Your task to perform on an android device: Go to Google maps Image 0: 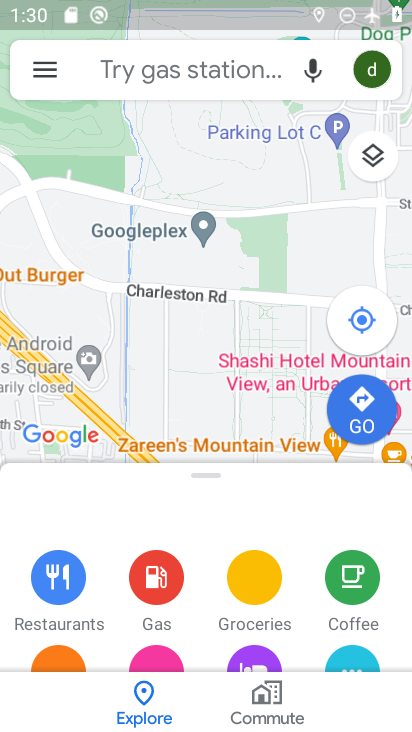
Step 0: drag from (313, 610) to (266, 63)
Your task to perform on an android device: Go to Google maps Image 1: 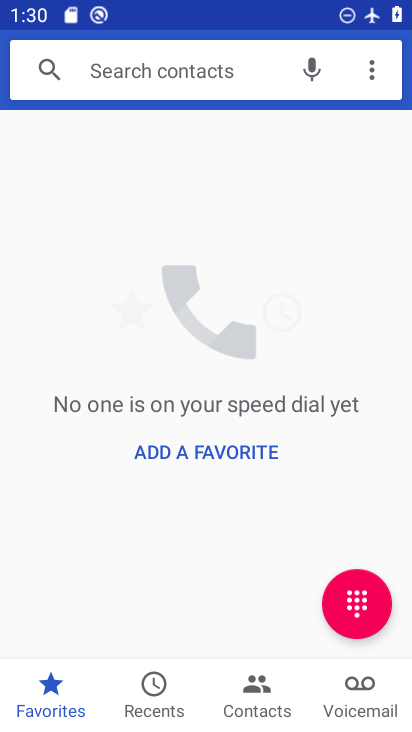
Step 1: press home button
Your task to perform on an android device: Go to Google maps Image 2: 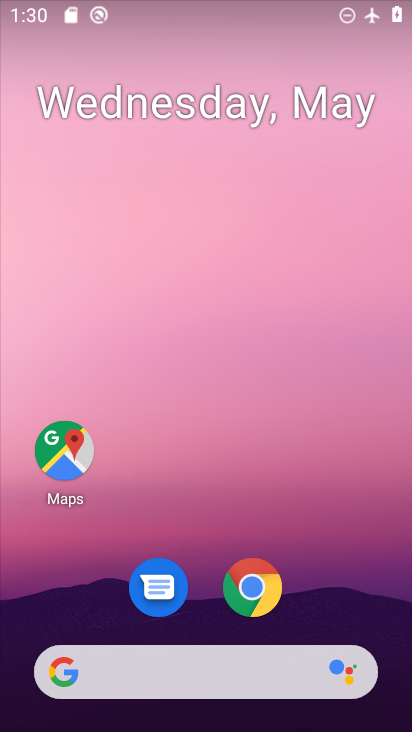
Step 2: drag from (210, 612) to (218, 150)
Your task to perform on an android device: Go to Google maps Image 3: 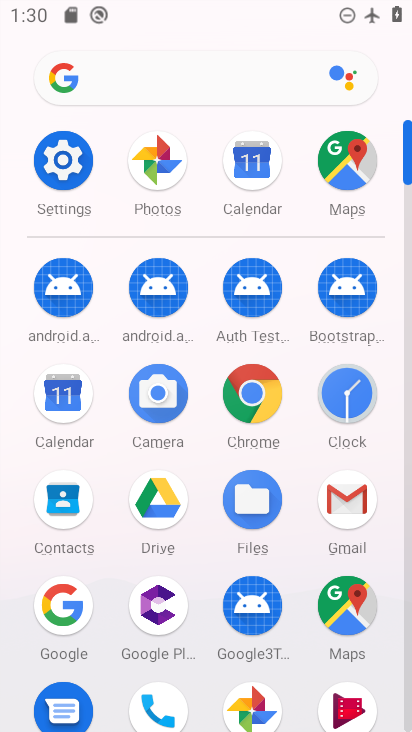
Step 3: click (337, 171)
Your task to perform on an android device: Go to Google maps Image 4: 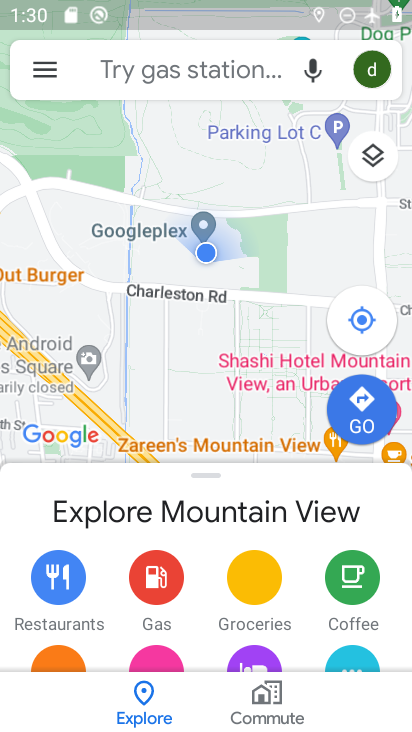
Step 4: task complete